Your task to perform on an android device: Show me productivity apps on the Play Store Image 0: 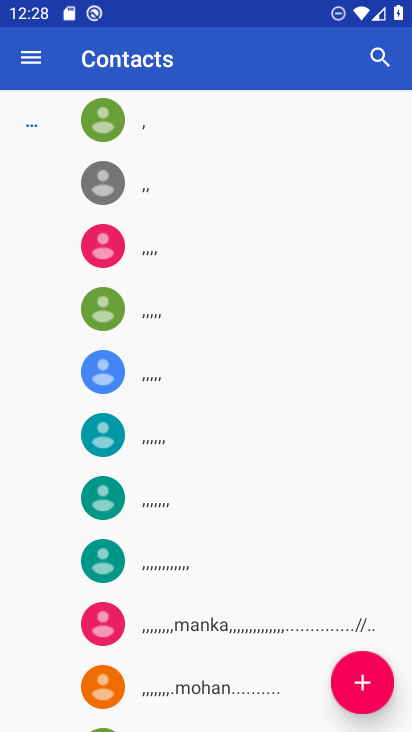
Step 0: press home button
Your task to perform on an android device: Show me productivity apps on the Play Store Image 1: 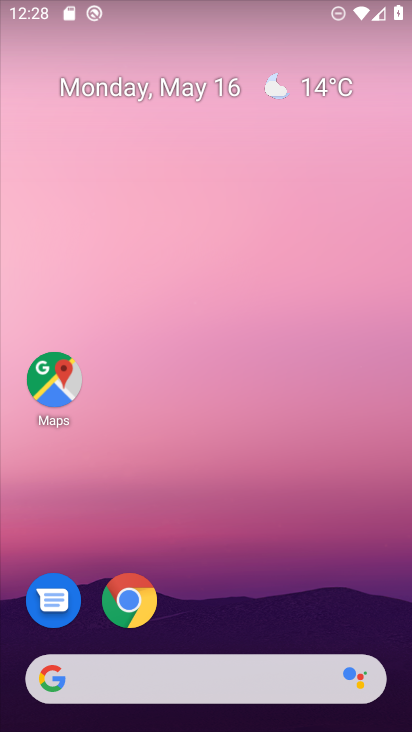
Step 1: drag from (224, 639) to (236, 125)
Your task to perform on an android device: Show me productivity apps on the Play Store Image 2: 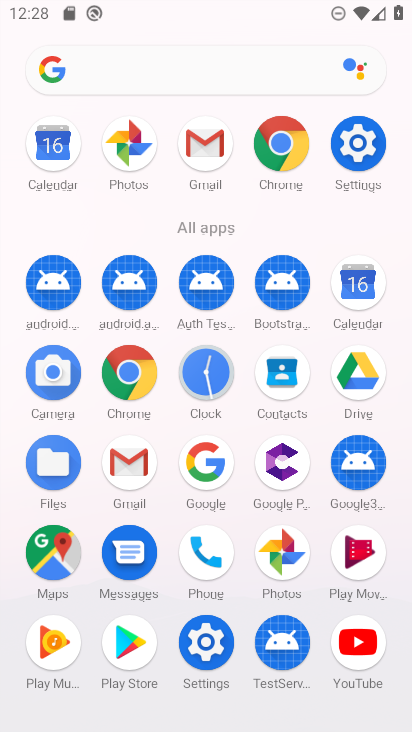
Step 2: click (128, 637)
Your task to perform on an android device: Show me productivity apps on the Play Store Image 3: 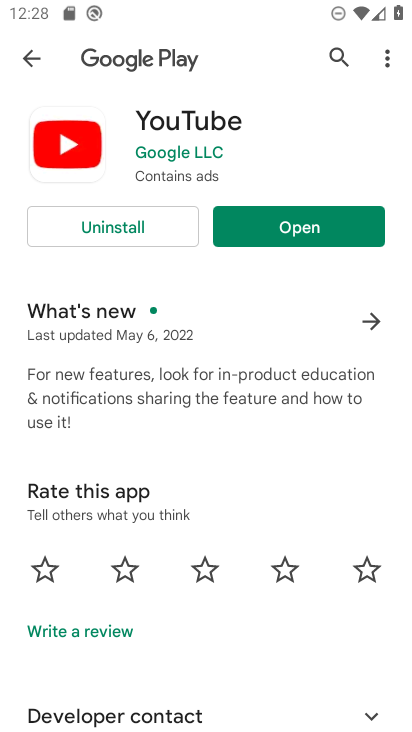
Step 3: click (107, 233)
Your task to perform on an android device: Show me productivity apps on the Play Store Image 4: 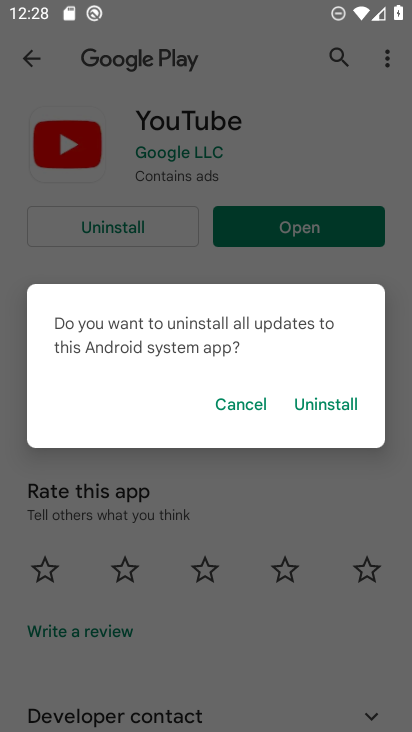
Step 4: click (237, 415)
Your task to perform on an android device: Show me productivity apps on the Play Store Image 5: 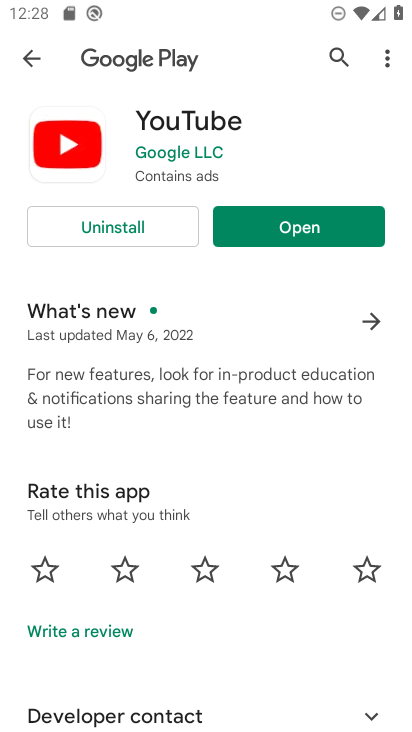
Step 5: click (31, 53)
Your task to perform on an android device: Show me productivity apps on the Play Store Image 6: 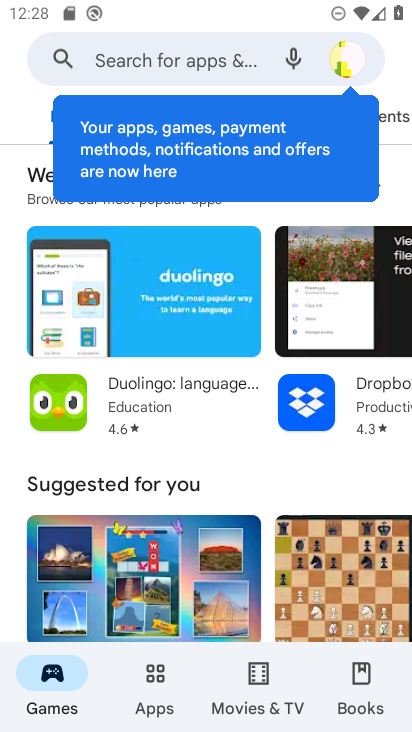
Step 6: click (145, 685)
Your task to perform on an android device: Show me productivity apps on the Play Store Image 7: 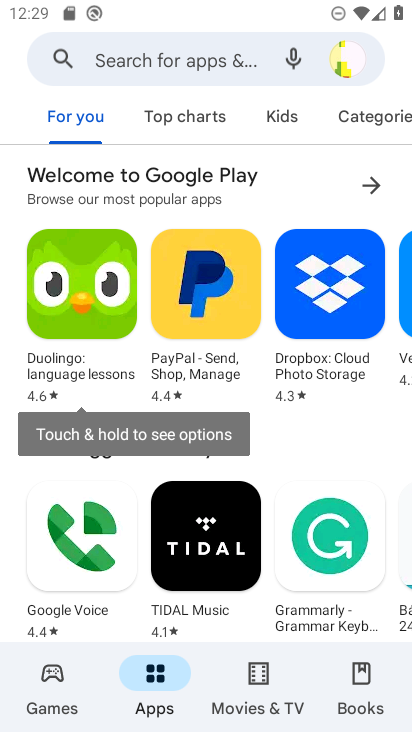
Step 7: click (386, 107)
Your task to perform on an android device: Show me productivity apps on the Play Store Image 8: 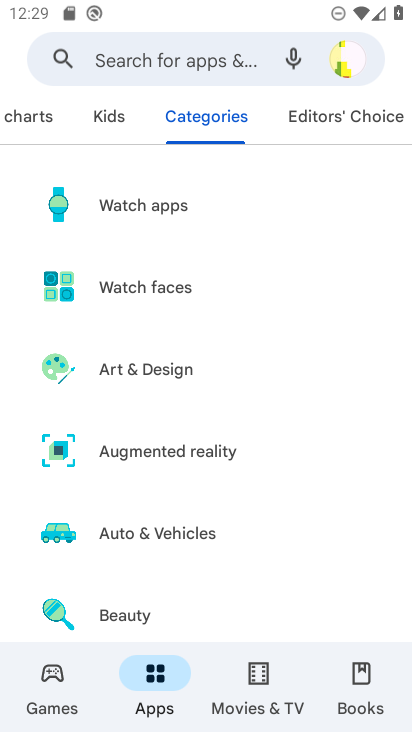
Step 8: drag from (207, 615) to (217, 16)
Your task to perform on an android device: Show me productivity apps on the Play Store Image 9: 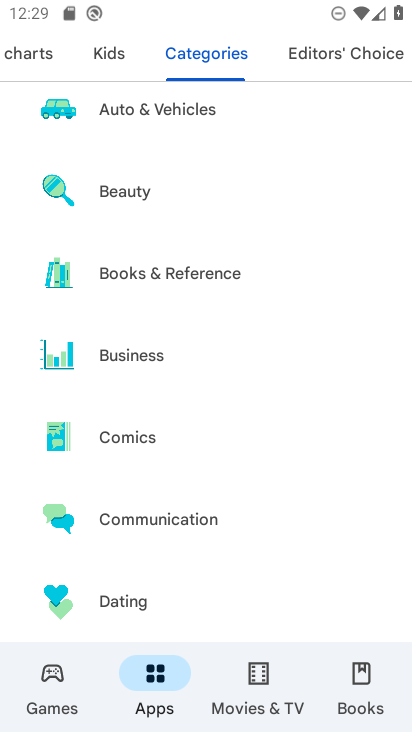
Step 9: drag from (160, 628) to (172, 31)
Your task to perform on an android device: Show me productivity apps on the Play Store Image 10: 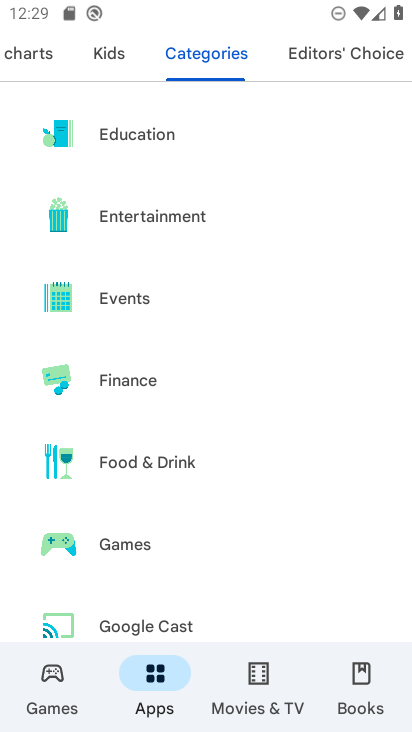
Step 10: drag from (195, 622) to (244, 2)
Your task to perform on an android device: Show me productivity apps on the Play Store Image 11: 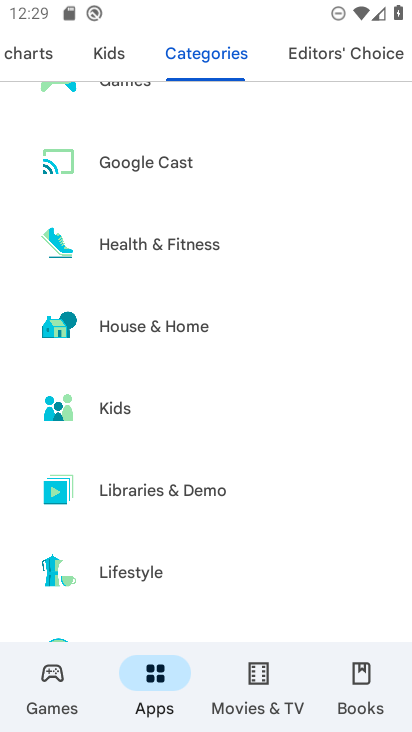
Step 11: drag from (168, 613) to (203, 71)
Your task to perform on an android device: Show me productivity apps on the Play Store Image 12: 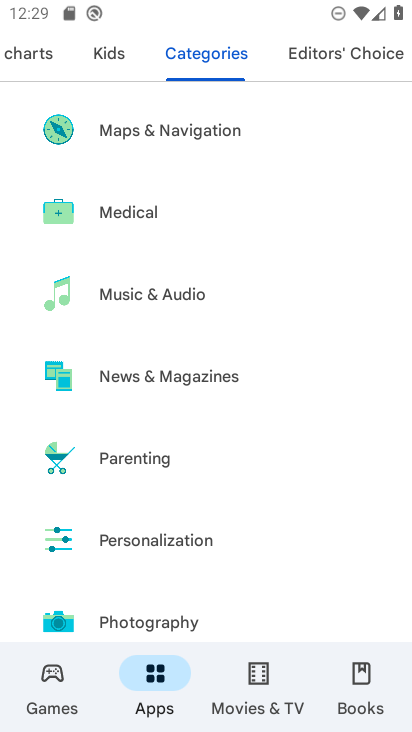
Step 12: drag from (207, 610) to (199, 110)
Your task to perform on an android device: Show me productivity apps on the Play Store Image 13: 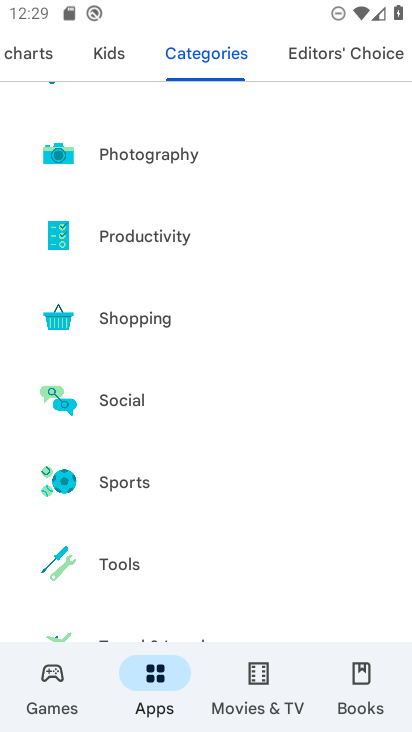
Step 13: click (204, 226)
Your task to perform on an android device: Show me productivity apps on the Play Store Image 14: 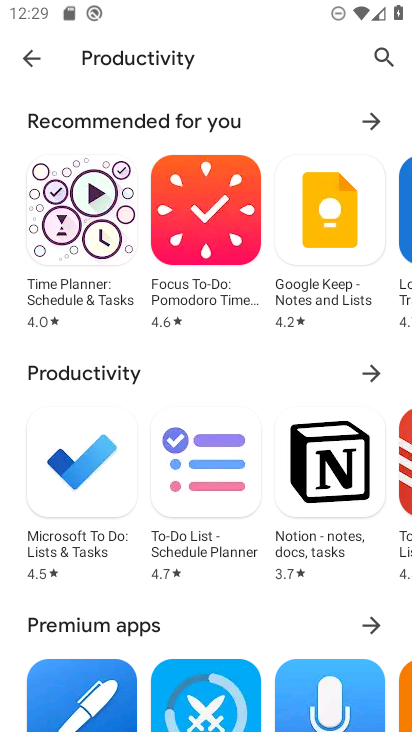
Step 14: task complete